Your task to perform on an android device: Open wifi settings Image 0: 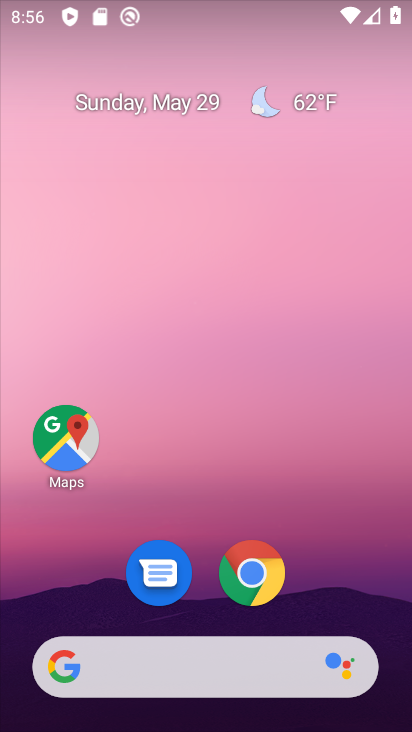
Step 0: press home button
Your task to perform on an android device: Open wifi settings Image 1: 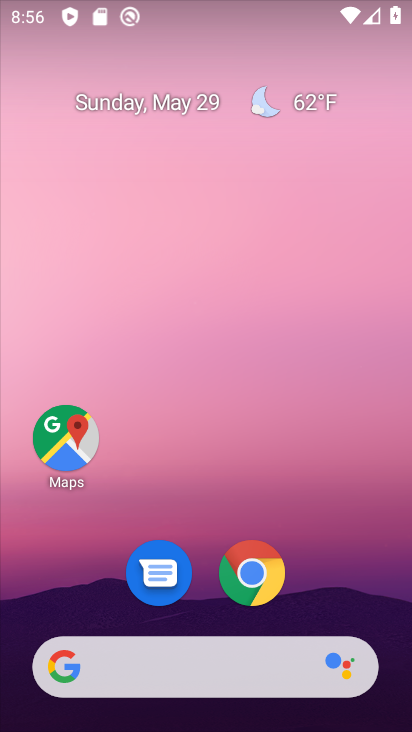
Step 1: drag from (334, 612) to (239, 165)
Your task to perform on an android device: Open wifi settings Image 2: 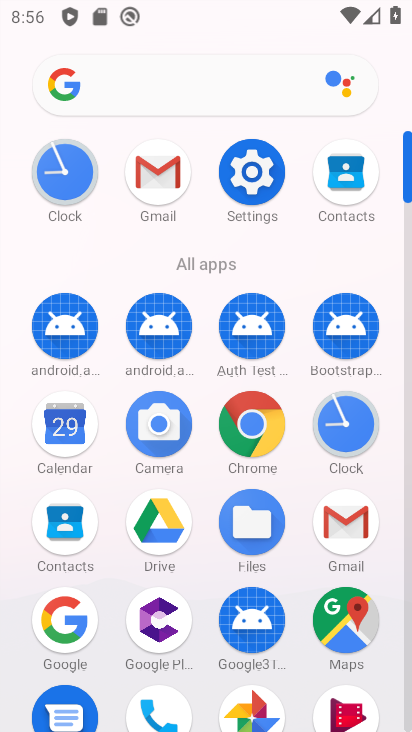
Step 2: click (256, 185)
Your task to perform on an android device: Open wifi settings Image 3: 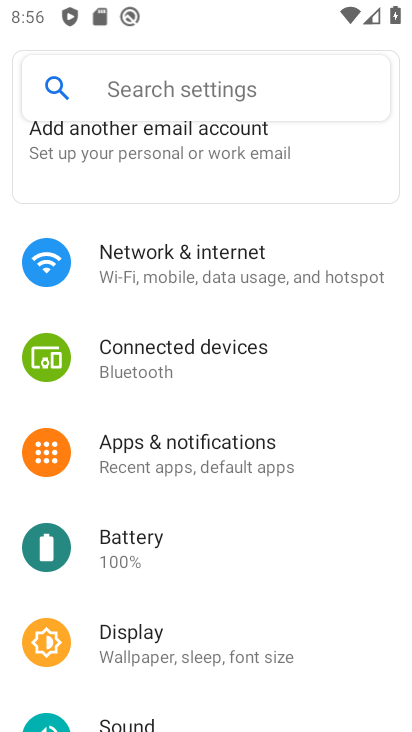
Step 3: click (188, 259)
Your task to perform on an android device: Open wifi settings Image 4: 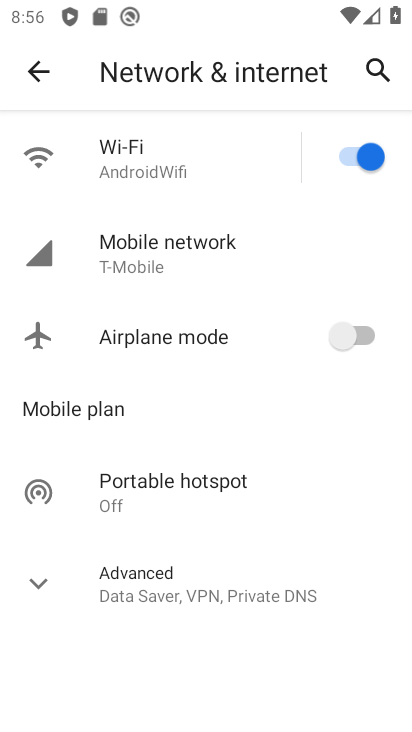
Step 4: click (129, 145)
Your task to perform on an android device: Open wifi settings Image 5: 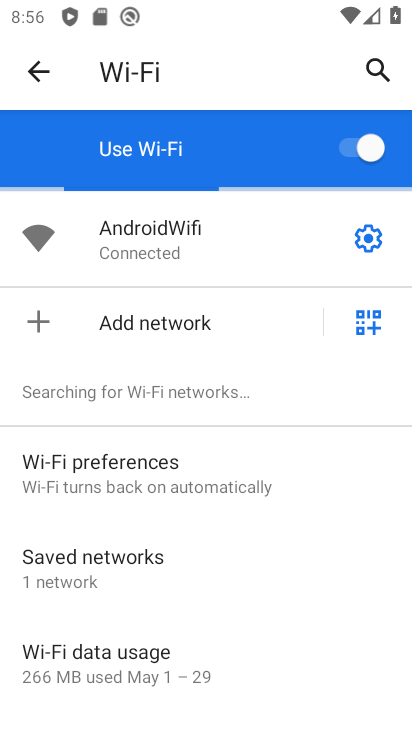
Step 5: task complete